Your task to perform on an android device: manage bookmarks in the chrome app Image 0: 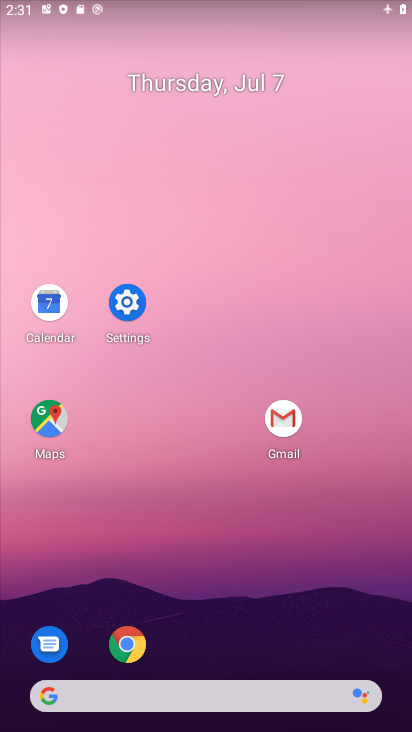
Step 0: click (134, 647)
Your task to perform on an android device: manage bookmarks in the chrome app Image 1: 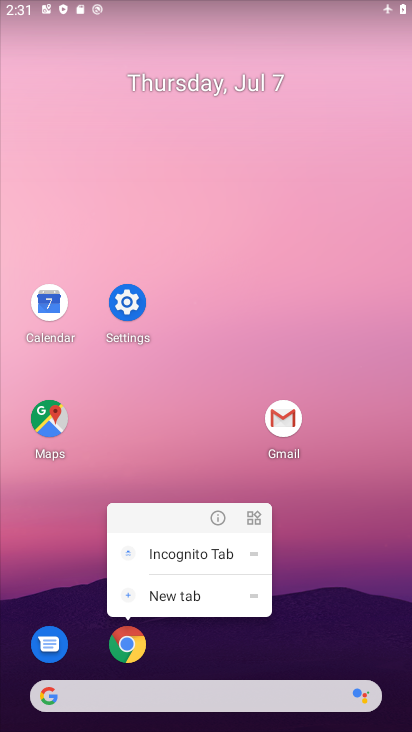
Step 1: click (144, 620)
Your task to perform on an android device: manage bookmarks in the chrome app Image 2: 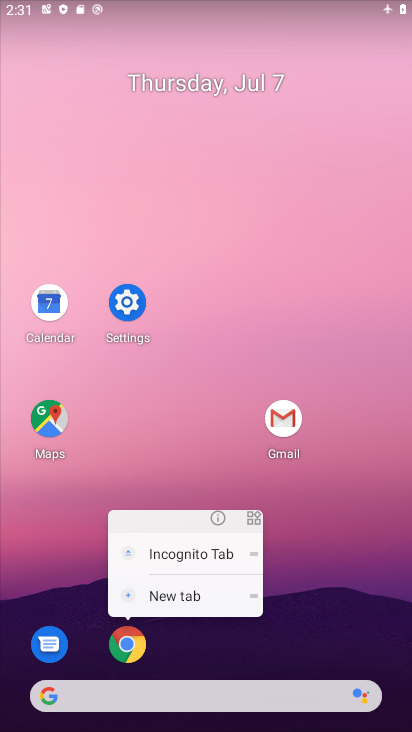
Step 2: click (112, 638)
Your task to perform on an android device: manage bookmarks in the chrome app Image 3: 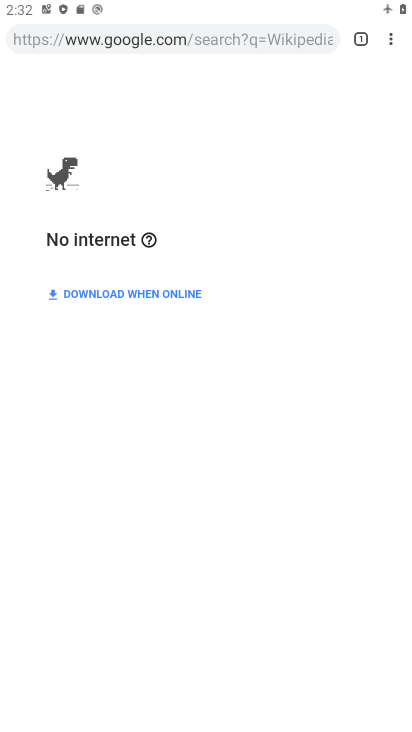
Step 3: press back button
Your task to perform on an android device: manage bookmarks in the chrome app Image 4: 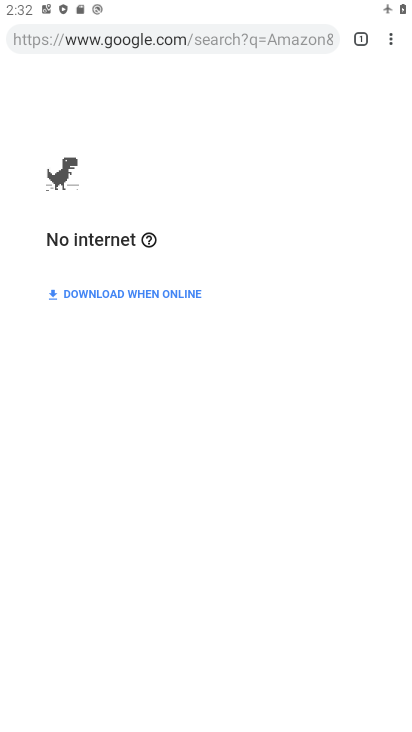
Step 4: press home button
Your task to perform on an android device: manage bookmarks in the chrome app Image 5: 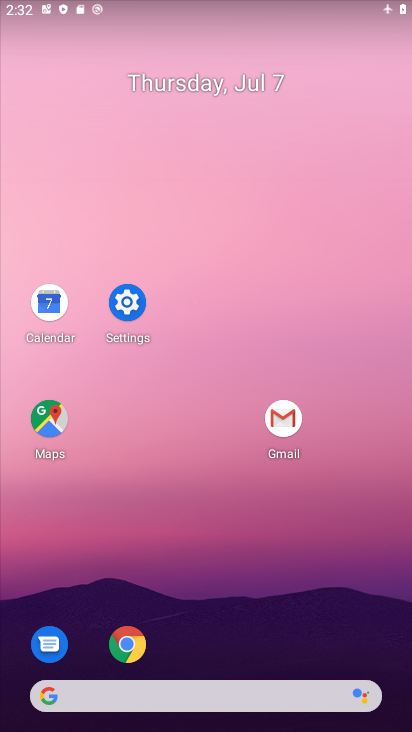
Step 5: click (130, 636)
Your task to perform on an android device: manage bookmarks in the chrome app Image 6: 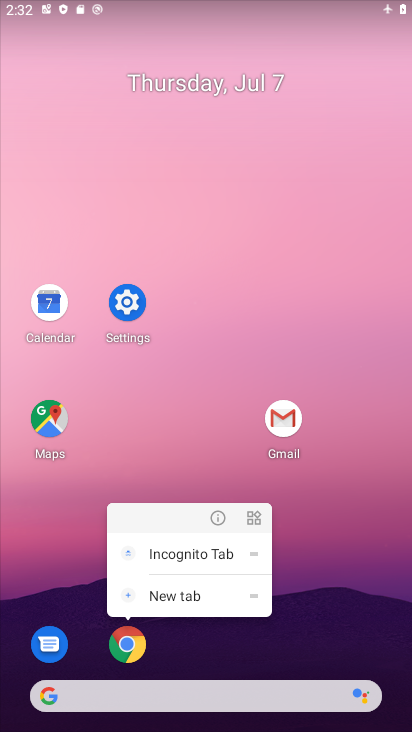
Step 6: click (130, 636)
Your task to perform on an android device: manage bookmarks in the chrome app Image 7: 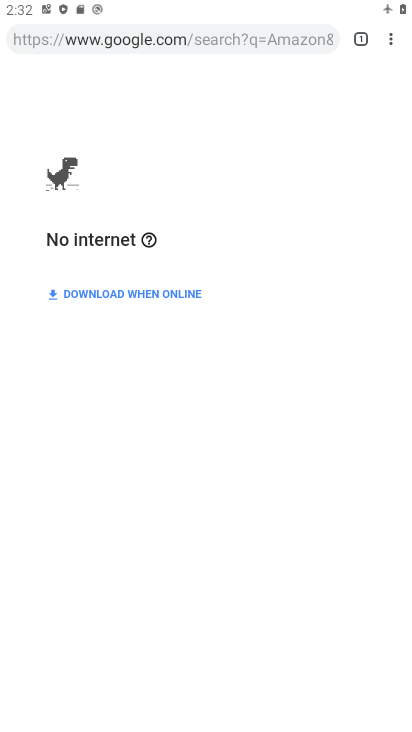
Step 7: click (387, 26)
Your task to perform on an android device: manage bookmarks in the chrome app Image 8: 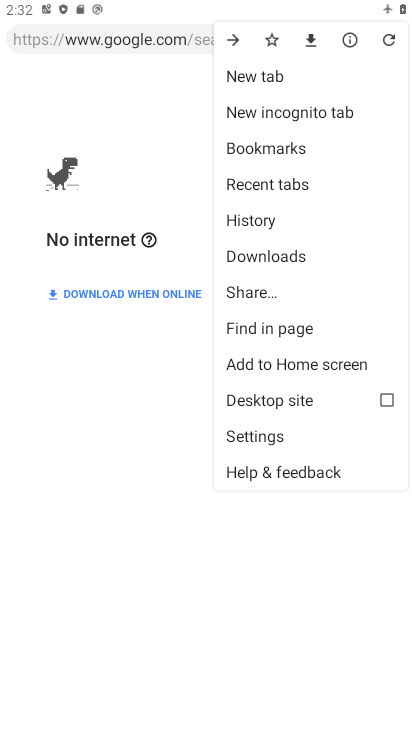
Step 8: click (263, 135)
Your task to perform on an android device: manage bookmarks in the chrome app Image 9: 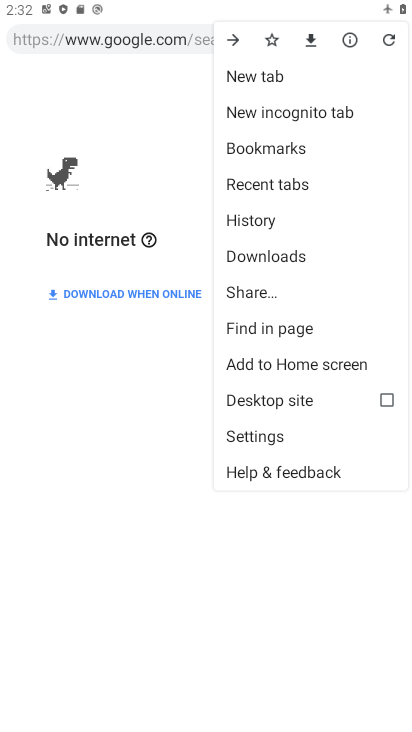
Step 9: click (266, 144)
Your task to perform on an android device: manage bookmarks in the chrome app Image 10: 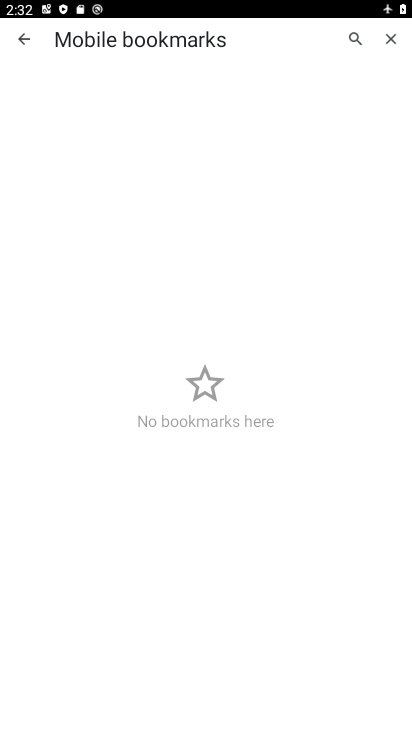
Step 10: task complete